Your task to perform on an android device: manage bookmarks in the chrome app Image 0: 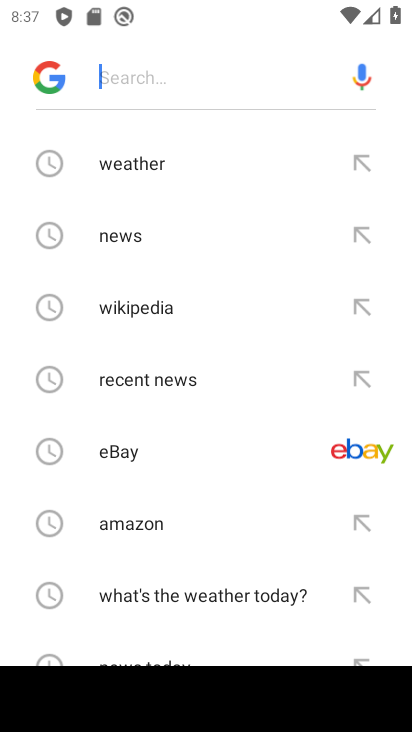
Step 0: press home button
Your task to perform on an android device: manage bookmarks in the chrome app Image 1: 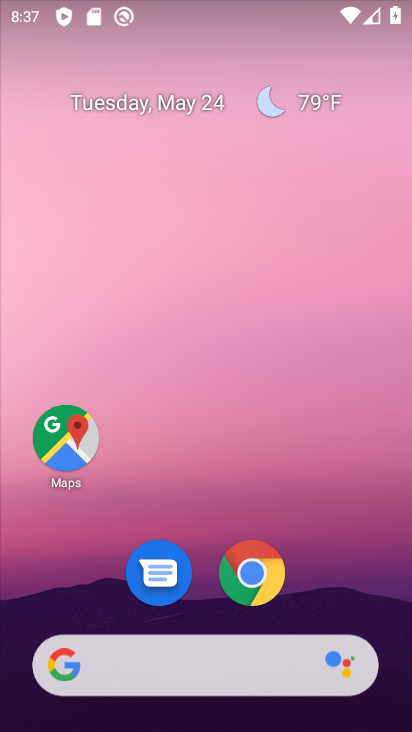
Step 1: click (252, 576)
Your task to perform on an android device: manage bookmarks in the chrome app Image 2: 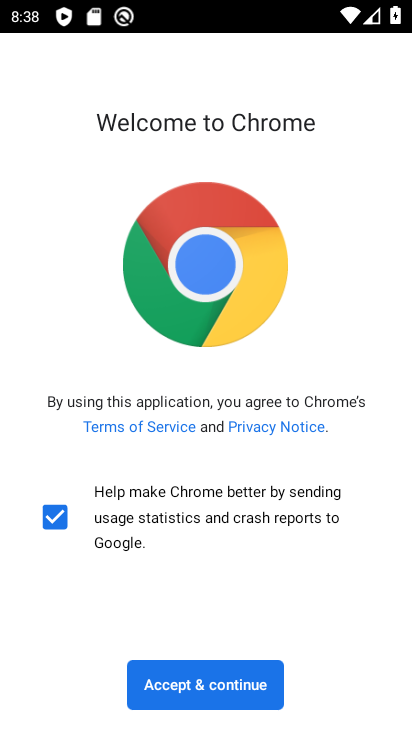
Step 2: click (197, 683)
Your task to perform on an android device: manage bookmarks in the chrome app Image 3: 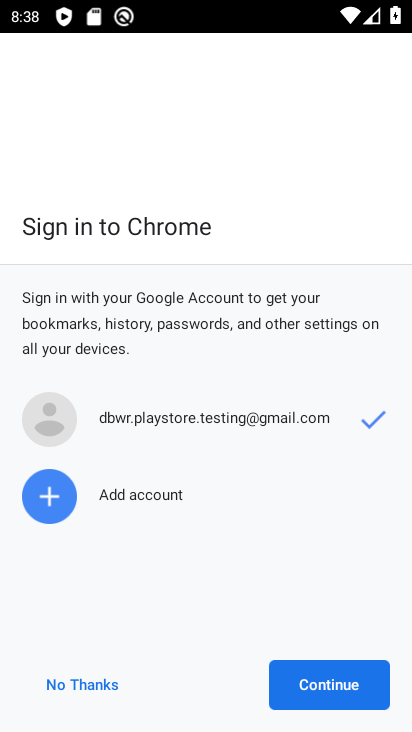
Step 3: click (335, 681)
Your task to perform on an android device: manage bookmarks in the chrome app Image 4: 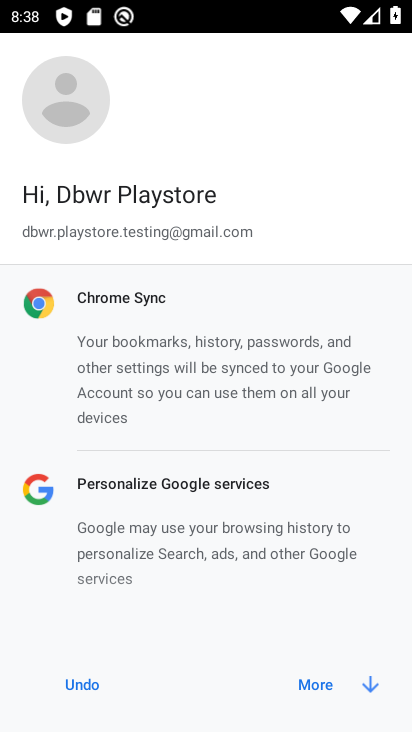
Step 4: click (335, 681)
Your task to perform on an android device: manage bookmarks in the chrome app Image 5: 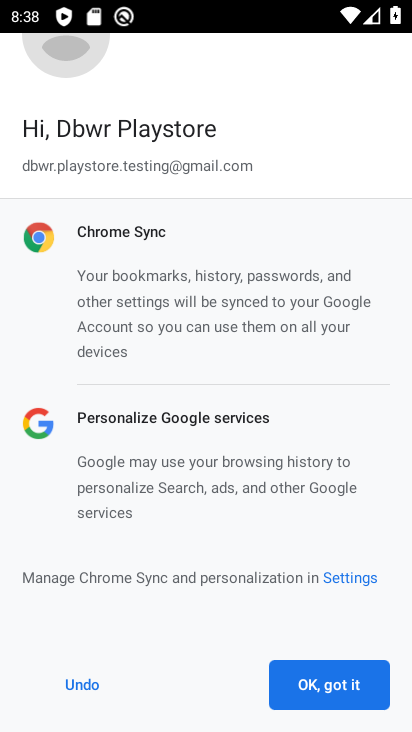
Step 5: click (335, 681)
Your task to perform on an android device: manage bookmarks in the chrome app Image 6: 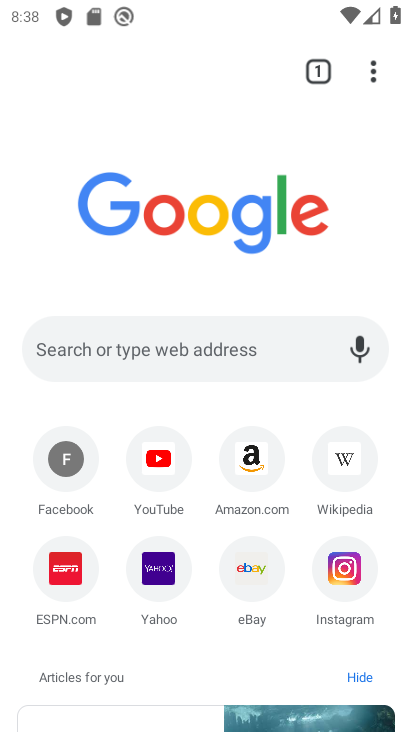
Step 6: click (370, 78)
Your task to perform on an android device: manage bookmarks in the chrome app Image 7: 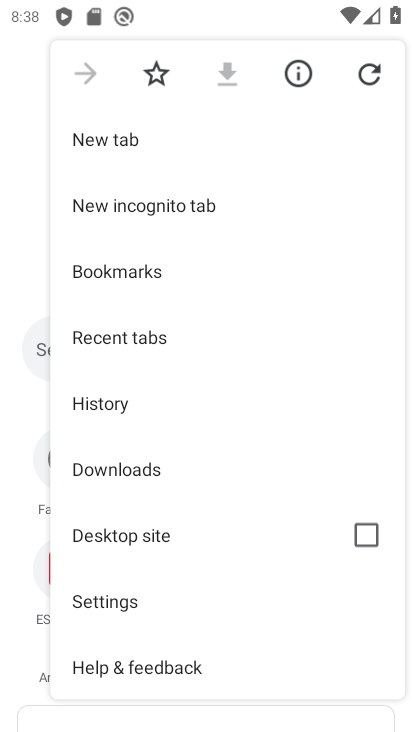
Step 7: click (91, 275)
Your task to perform on an android device: manage bookmarks in the chrome app Image 8: 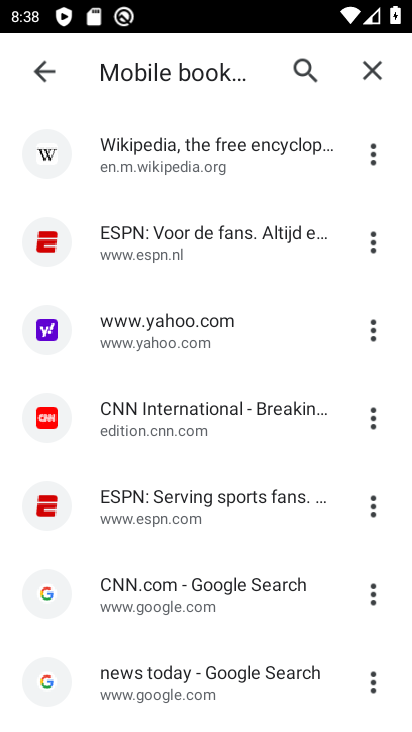
Step 8: click (146, 161)
Your task to perform on an android device: manage bookmarks in the chrome app Image 9: 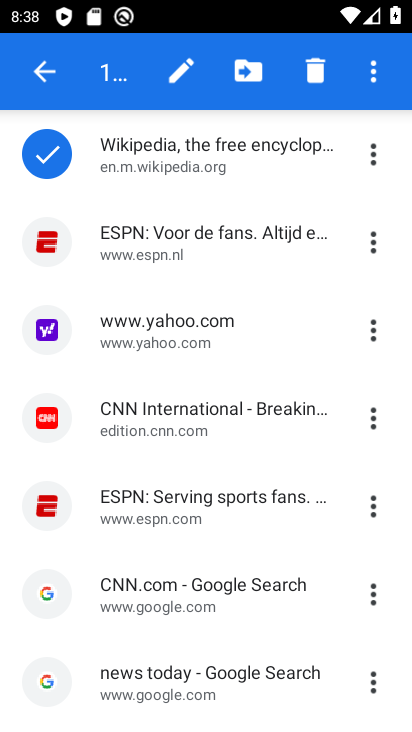
Step 9: click (248, 73)
Your task to perform on an android device: manage bookmarks in the chrome app Image 10: 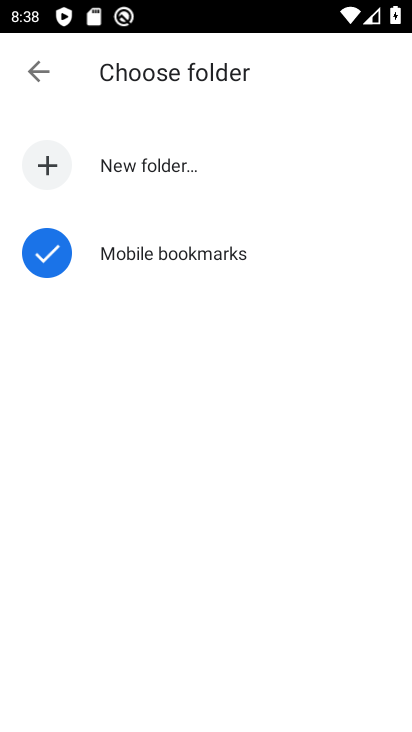
Step 10: click (47, 158)
Your task to perform on an android device: manage bookmarks in the chrome app Image 11: 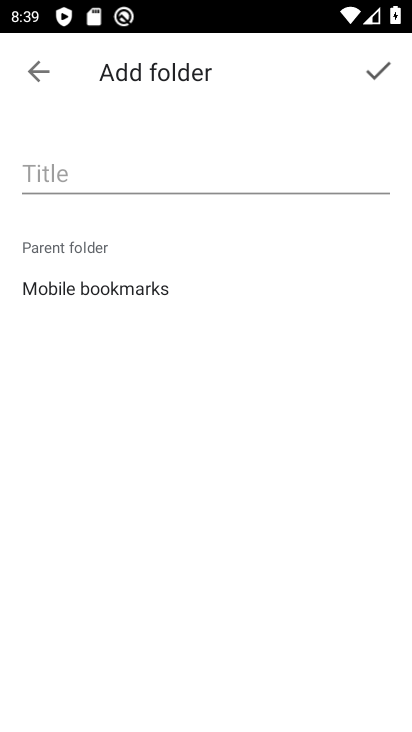
Step 11: type "iuujfjfh"
Your task to perform on an android device: manage bookmarks in the chrome app Image 12: 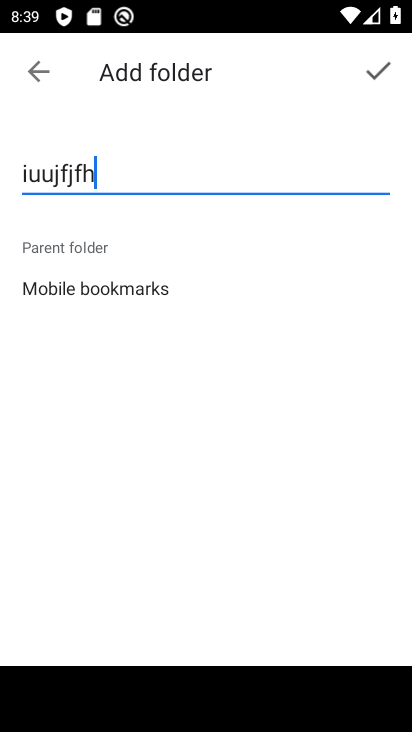
Step 12: click (374, 71)
Your task to perform on an android device: manage bookmarks in the chrome app Image 13: 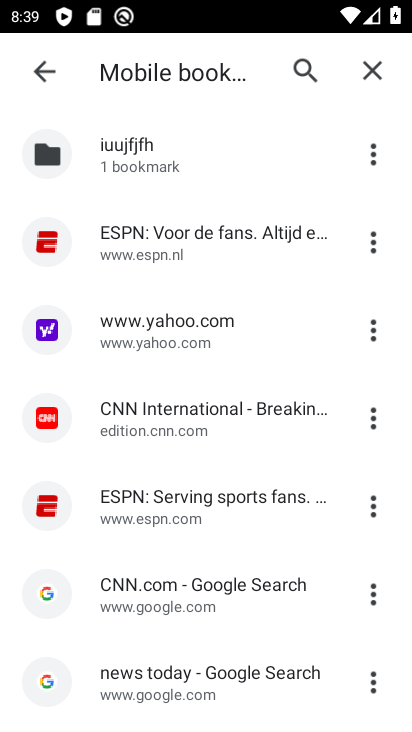
Step 13: task complete